Your task to perform on an android device: Open internet settings Image 0: 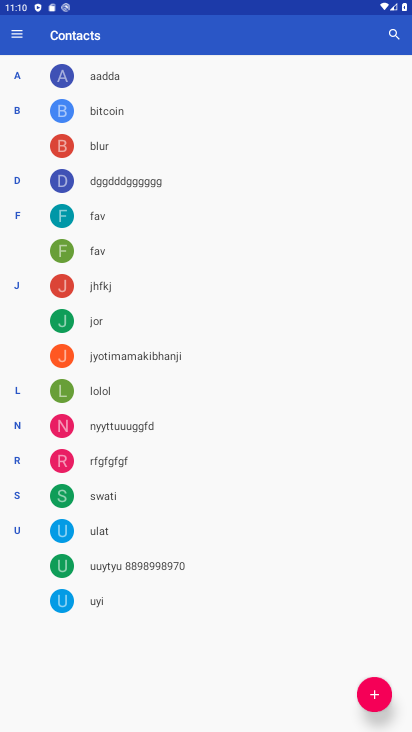
Step 0: press home button
Your task to perform on an android device: Open internet settings Image 1: 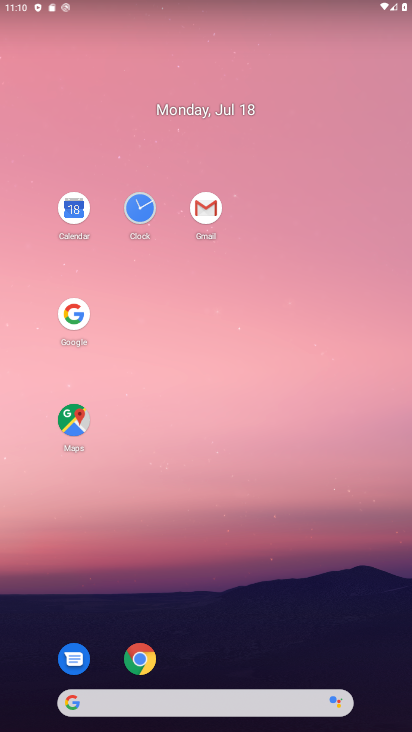
Step 1: drag from (226, 631) to (231, 180)
Your task to perform on an android device: Open internet settings Image 2: 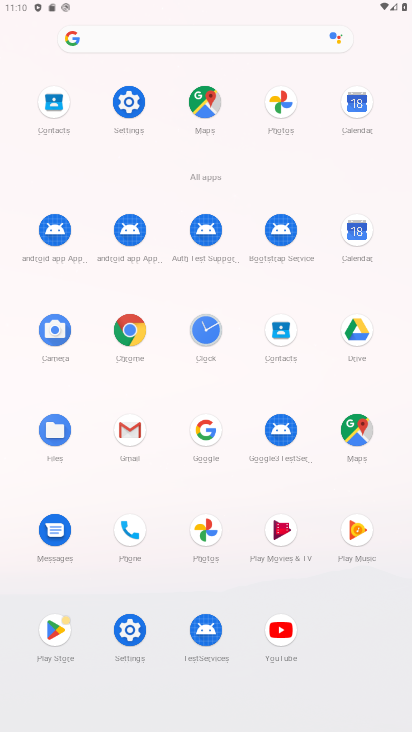
Step 2: drag from (134, 107) to (141, 299)
Your task to perform on an android device: Open internet settings Image 3: 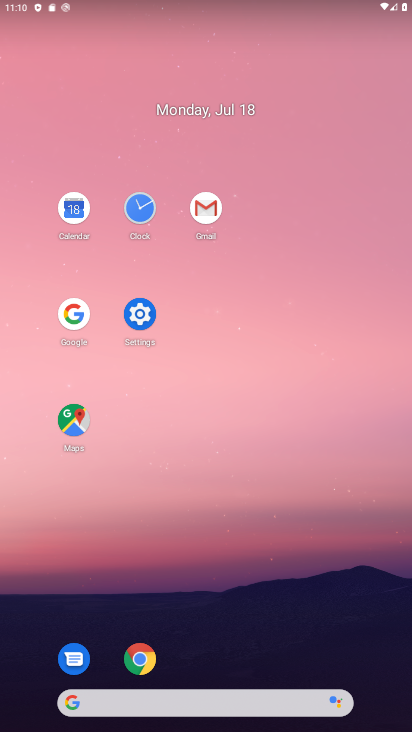
Step 3: click (132, 309)
Your task to perform on an android device: Open internet settings Image 4: 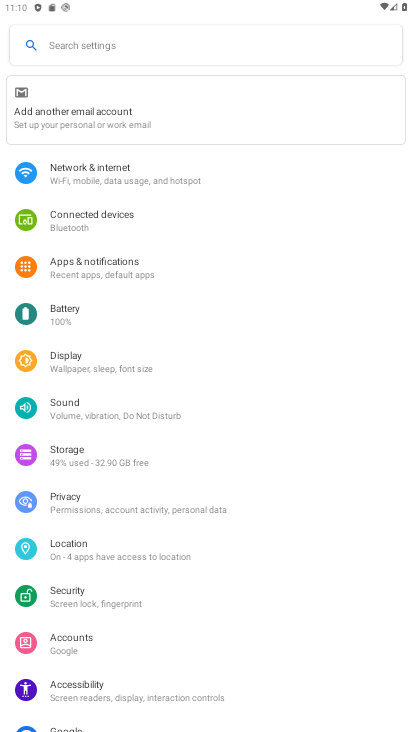
Step 4: click (117, 183)
Your task to perform on an android device: Open internet settings Image 5: 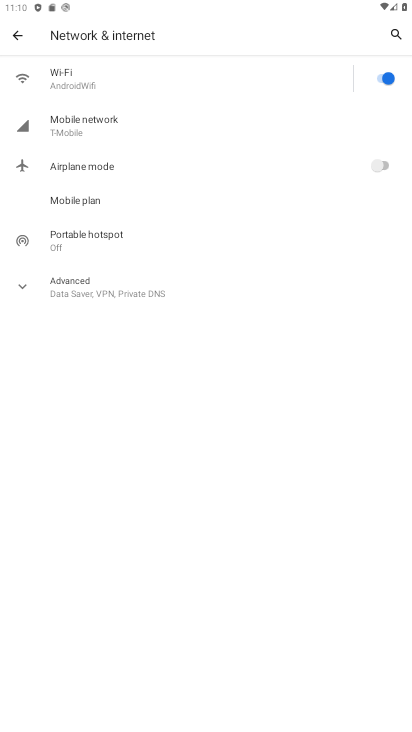
Step 5: click (148, 138)
Your task to perform on an android device: Open internet settings Image 6: 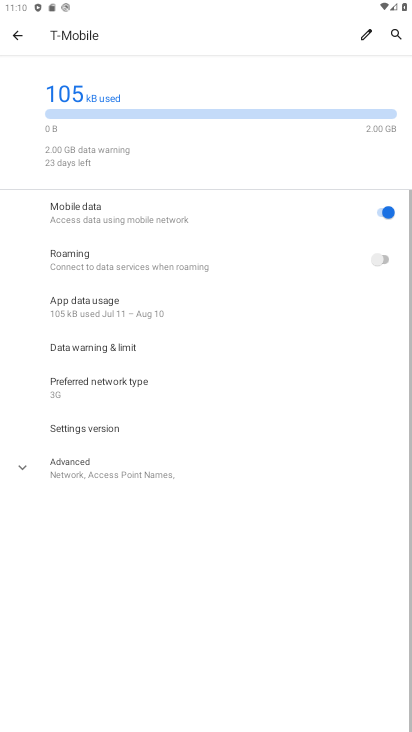
Step 6: task complete